Your task to perform on an android device: Go to Google maps Image 0: 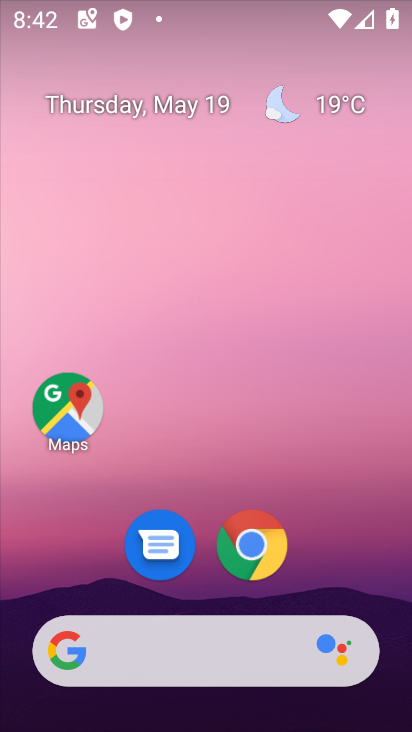
Step 0: click (81, 395)
Your task to perform on an android device: Go to Google maps Image 1: 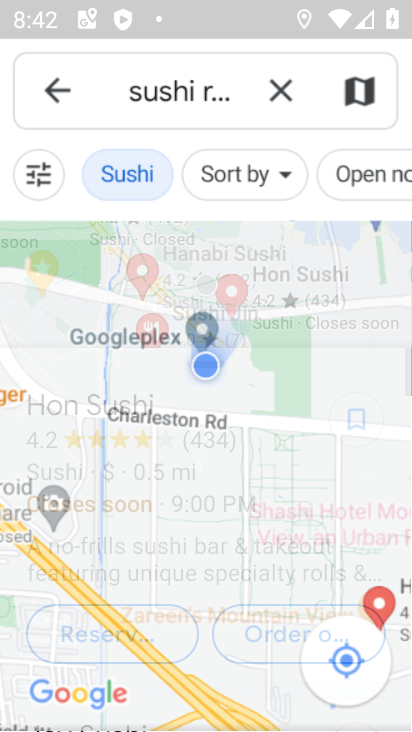
Step 1: task complete